Your task to perform on an android device: Set the phone to "Do not disturb". Image 0: 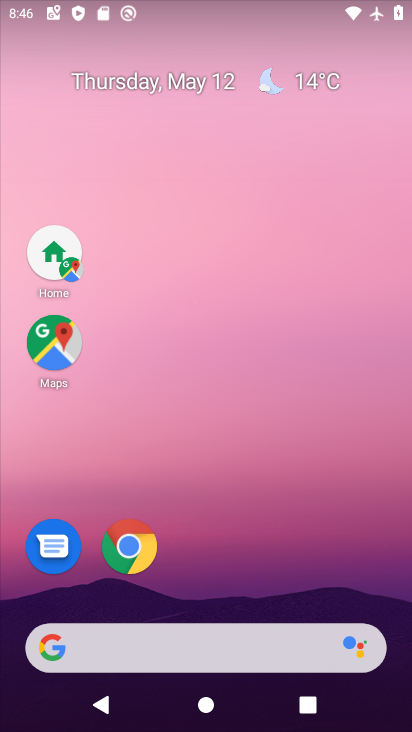
Step 0: drag from (140, 635) to (353, 202)
Your task to perform on an android device: Set the phone to "Do not disturb". Image 1: 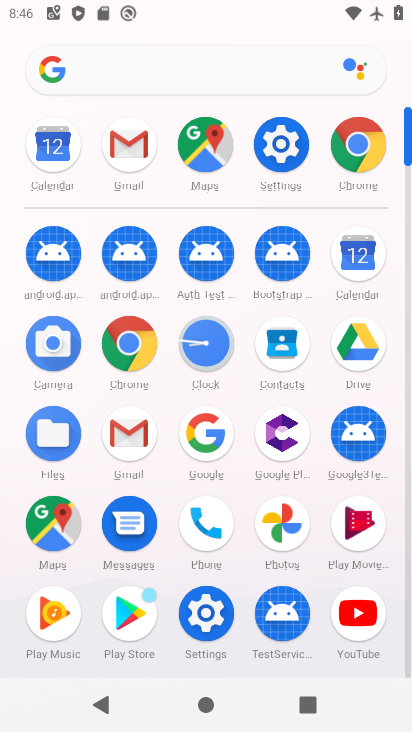
Step 1: click (286, 158)
Your task to perform on an android device: Set the phone to "Do not disturb". Image 2: 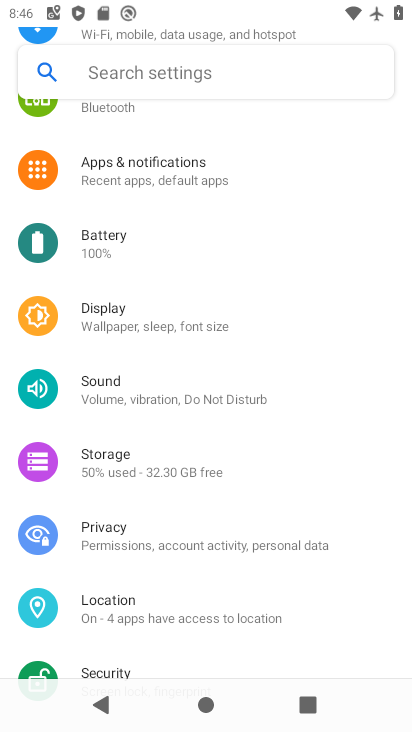
Step 2: click (115, 390)
Your task to perform on an android device: Set the phone to "Do not disturb". Image 3: 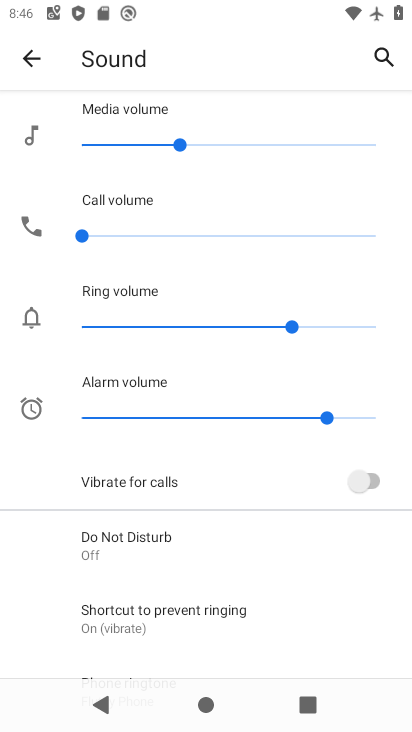
Step 3: click (117, 535)
Your task to perform on an android device: Set the phone to "Do not disturb". Image 4: 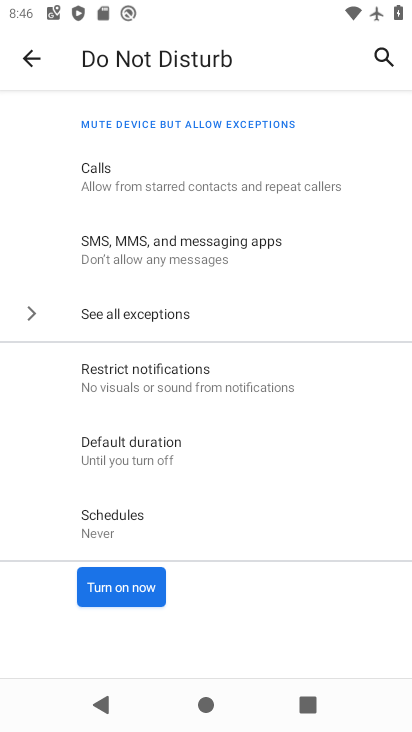
Step 4: click (117, 592)
Your task to perform on an android device: Set the phone to "Do not disturb". Image 5: 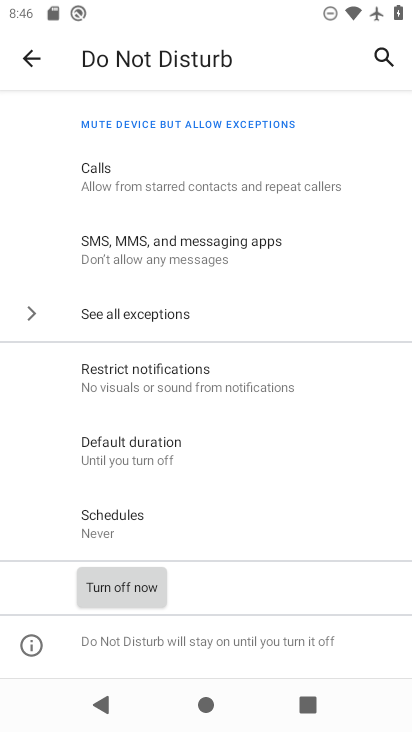
Step 5: task complete